Your task to perform on an android device: Go to Yahoo.com Image 0: 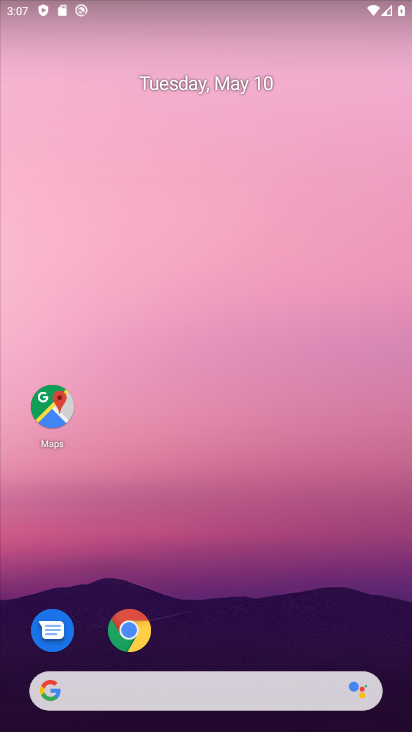
Step 0: click (130, 628)
Your task to perform on an android device: Go to Yahoo.com Image 1: 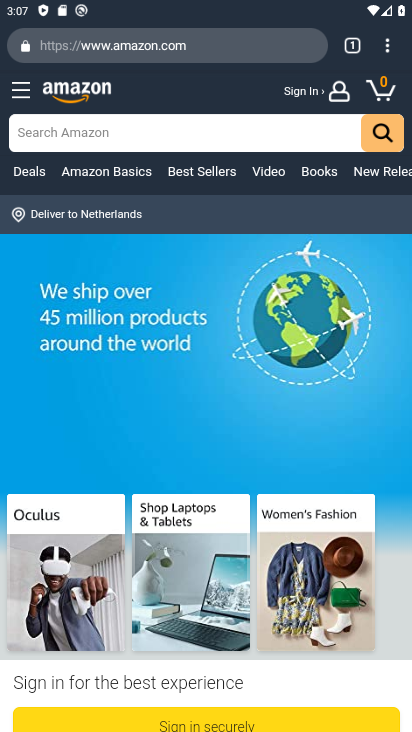
Step 1: click (354, 52)
Your task to perform on an android device: Go to Yahoo.com Image 2: 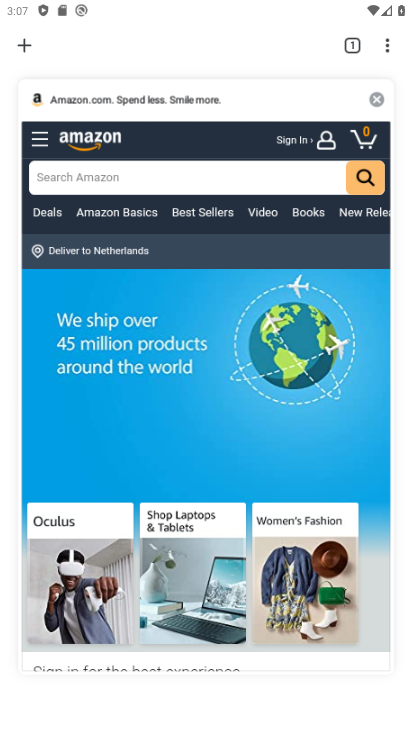
Step 2: click (20, 51)
Your task to perform on an android device: Go to Yahoo.com Image 3: 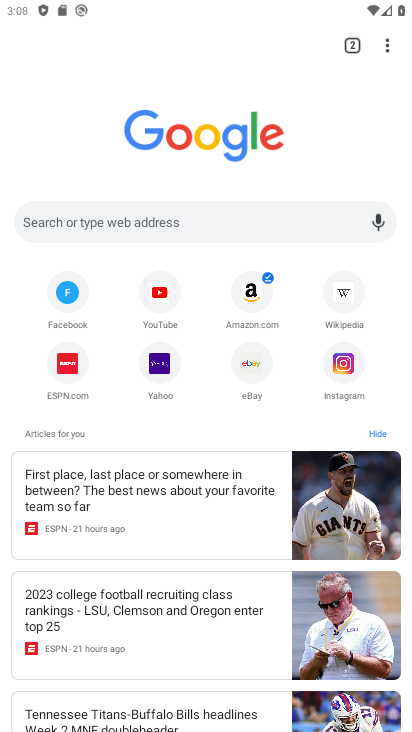
Step 3: click (163, 366)
Your task to perform on an android device: Go to Yahoo.com Image 4: 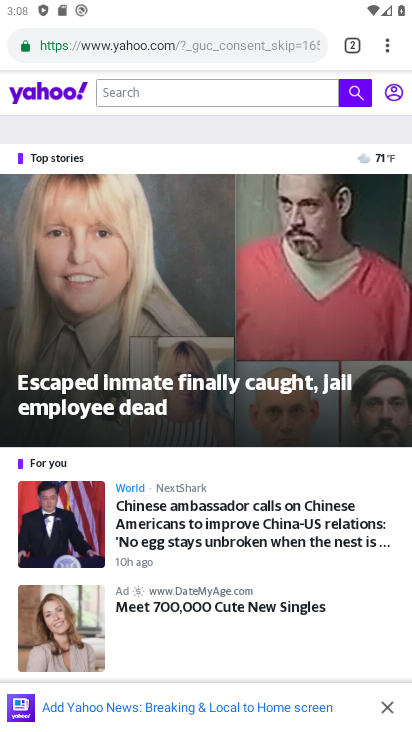
Step 4: task complete